Your task to perform on an android device: stop showing notifications on the lock screen Image 0: 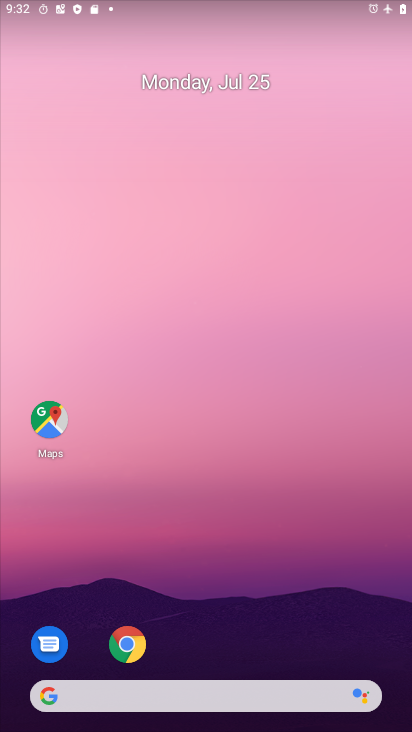
Step 0: drag from (284, 649) to (124, 208)
Your task to perform on an android device: stop showing notifications on the lock screen Image 1: 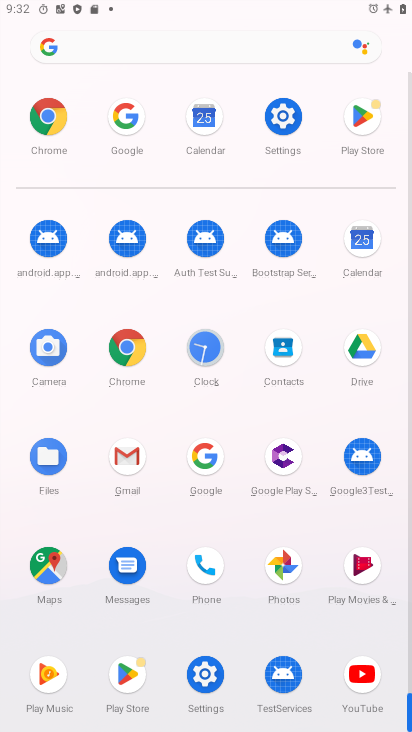
Step 1: click (217, 666)
Your task to perform on an android device: stop showing notifications on the lock screen Image 2: 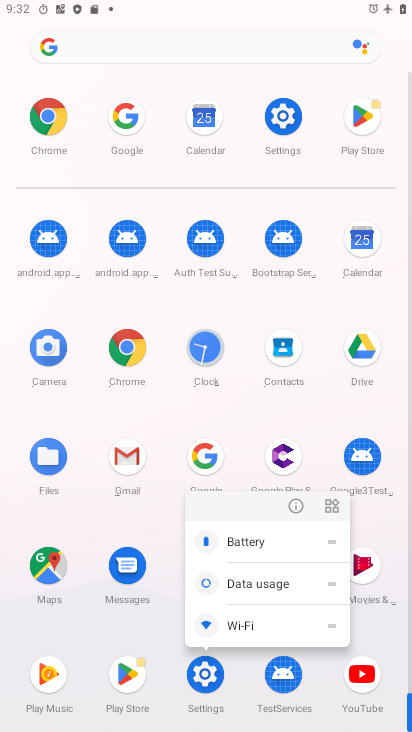
Step 2: click (217, 664)
Your task to perform on an android device: stop showing notifications on the lock screen Image 3: 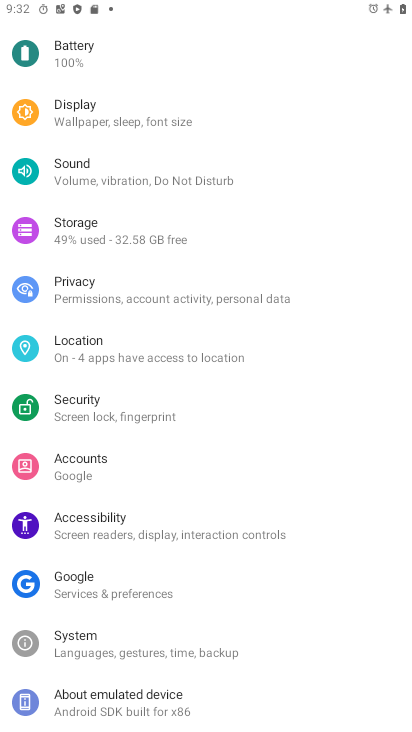
Step 3: drag from (185, 268) to (218, 564)
Your task to perform on an android device: stop showing notifications on the lock screen Image 4: 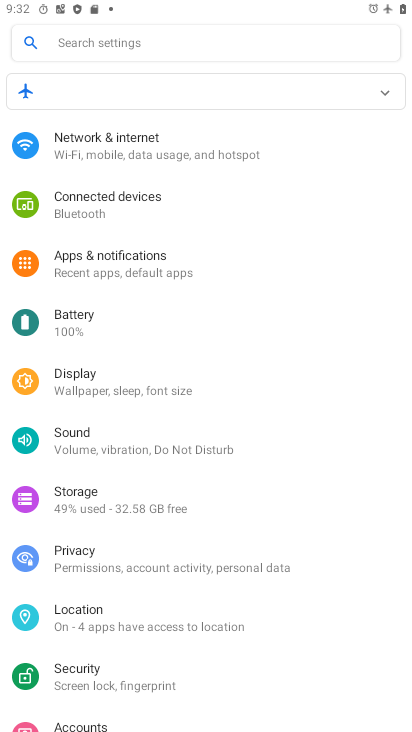
Step 4: click (147, 273)
Your task to perform on an android device: stop showing notifications on the lock screen Image 5: 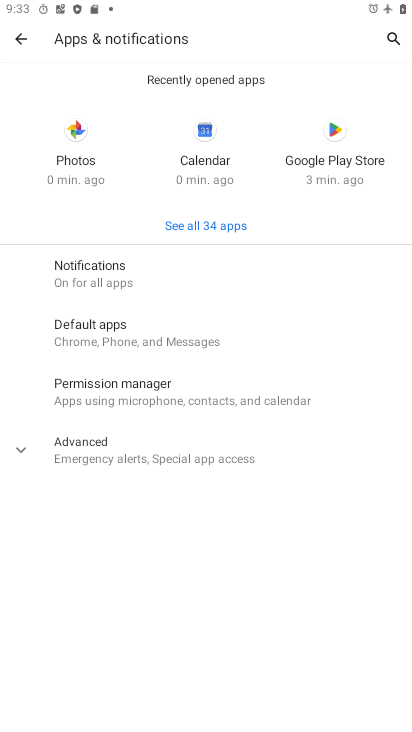
Step 5: click (151, 280)
Your task to perform on an android device: stop showing notifications on the lock screen Image 6: 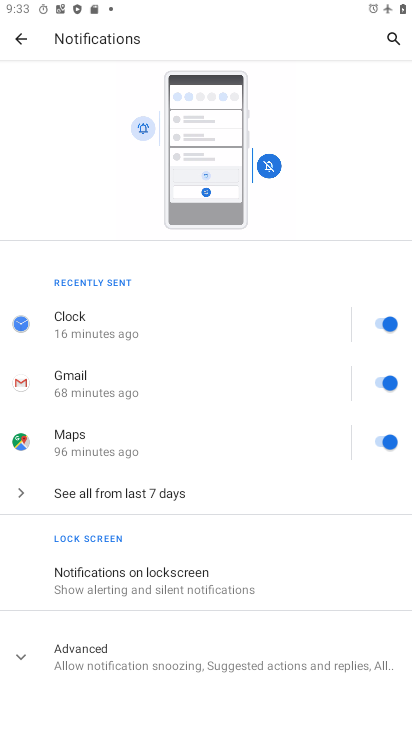
Step 6: click (198, 584)
Your task to perform on an android device: stop showing notifications on the lock screen Image 7: 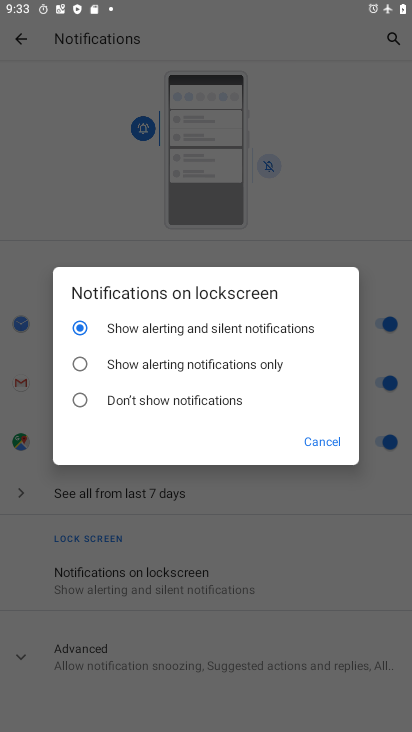
Step 7: click (102, 404)
Your task to perform on an android device: stop showing notifications on the lock screen Image 8: 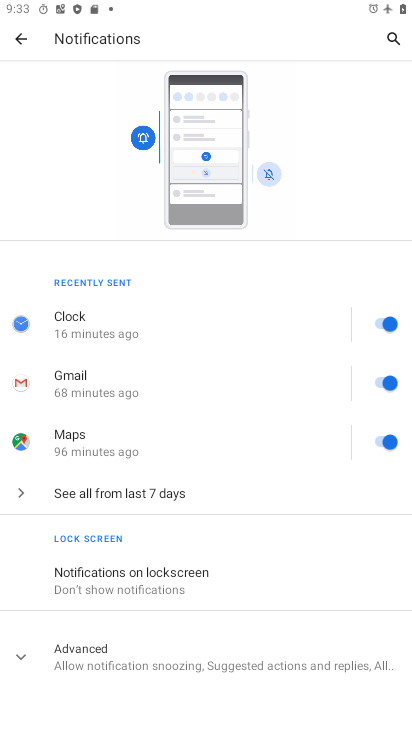
Step 8: task complete